Your task to perform on an android device: see sites visited before in the chrome app Image 0: 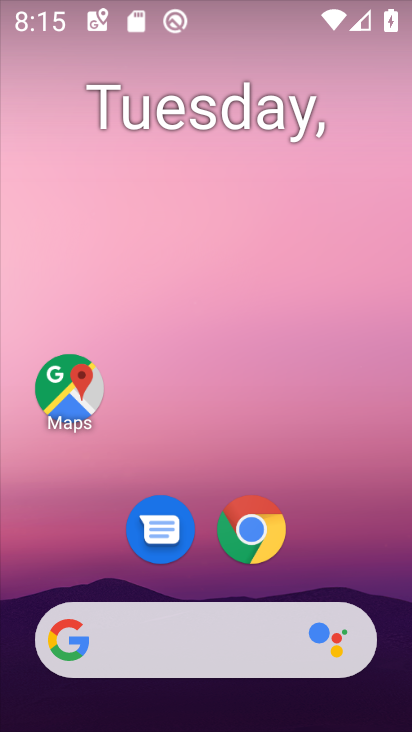
Step 0: click (256, 528)
Your task to perform on an android device: see sites visited before in the chrome app Image 1: 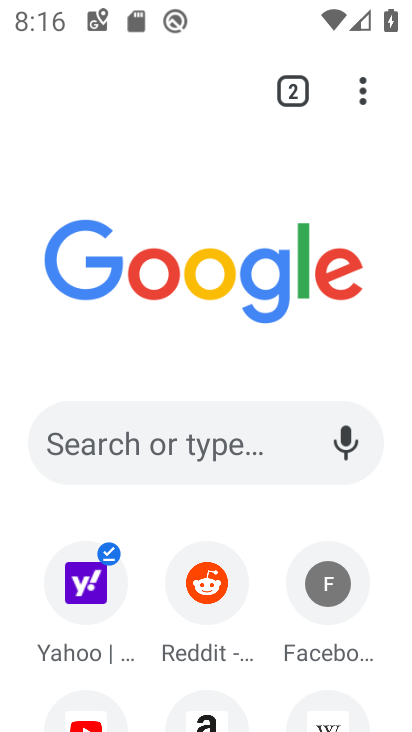
Step 1: task complete